Your task to perform on an android device: show emergency info Image 0: 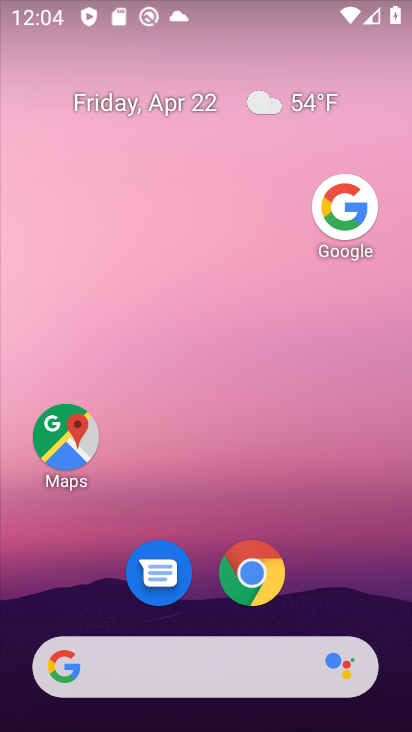
Step 0: drag from (202, 448) to (232, 77)
Your task to perform on an android device: show emergency info Image 1: 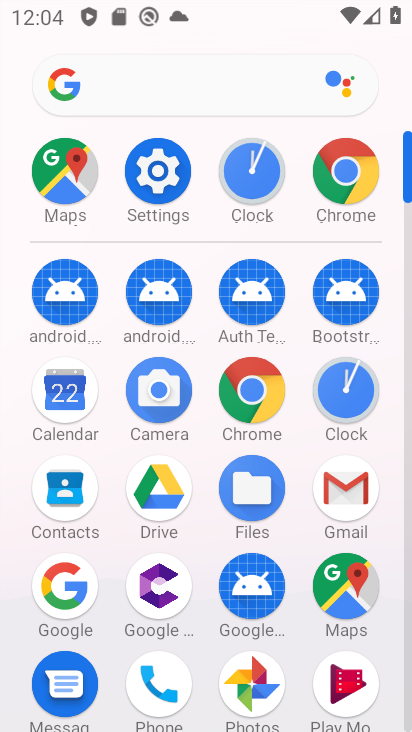
Step 1: click (154, 179)
Your task to perform on an android device: show emergency info Image 2: 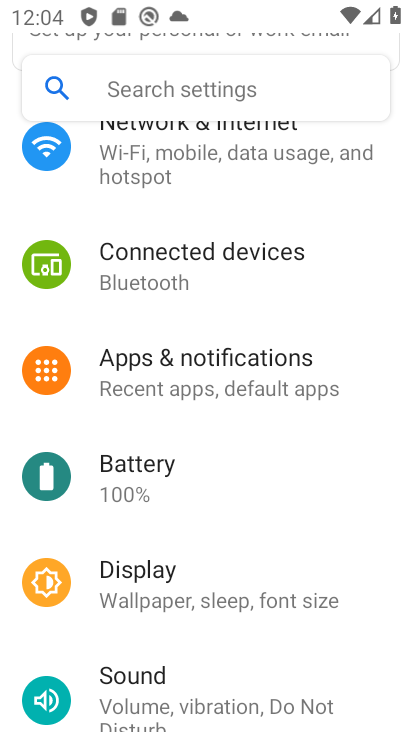
Step 2: drag from (173, 647) to (366, 62)
Your task to perform on an android device: show emergency info Image 3: 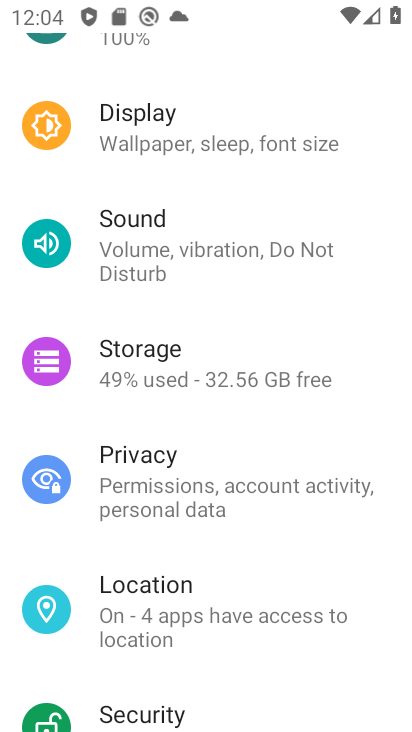
Step 3: drag from (186, 605) to (342, 1)
Your task to perform on an android device: show emergency info Image 4: 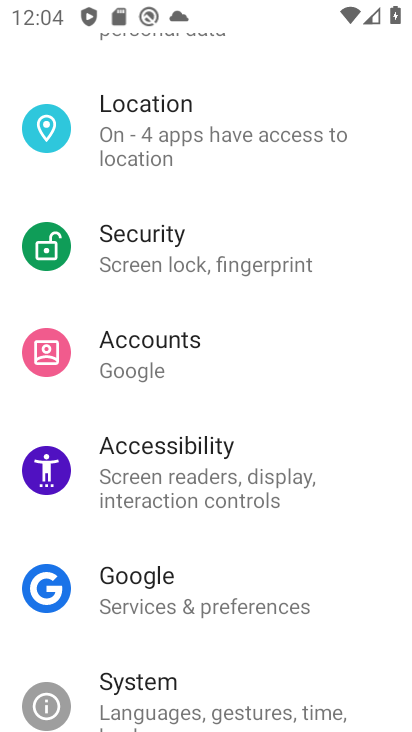
Step 4: drag from (191, 641) to (308, 8)
Your task to perform on an android device: show emergency info Image 5: 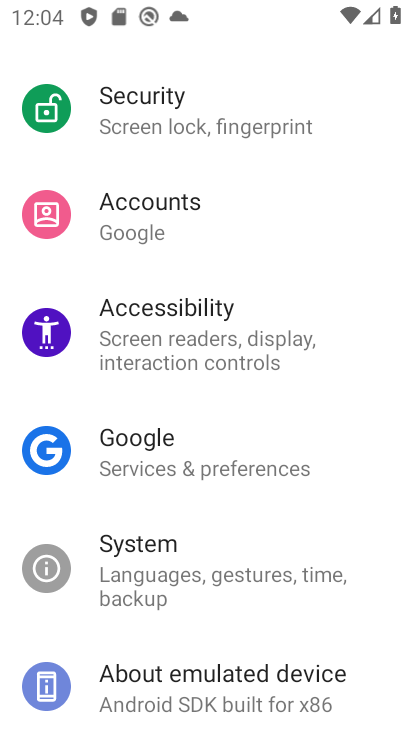
Step 5: click (202, 660)
Your task to perform on an android device: show emergency info Image 6: 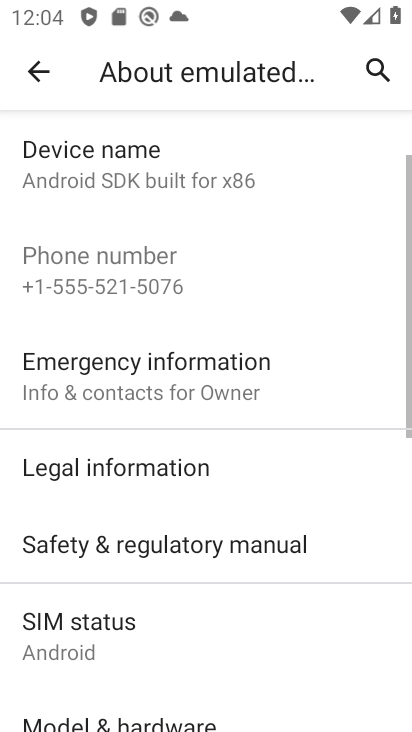
Step 6: click (186, 390)
Your task to perform on an android device: show emergency info Image 7: 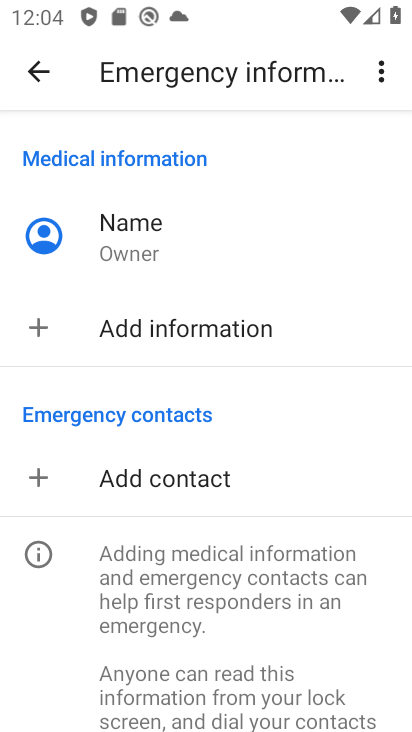
Step 7: task complete